Your task to perform on an android device: Do I have any events today? Image 0: 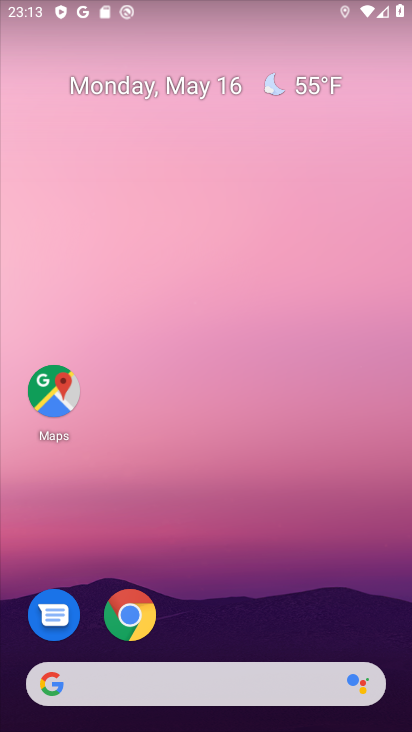
Step 0: drag from (226, 646) to (194, 155)
Your task to perform on an android device: Do I have any events today? Image 1: 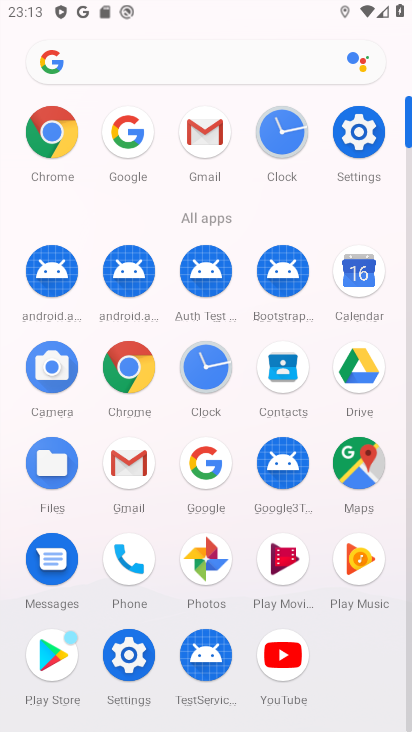
Step 1: click (351, 276)
Your task to perform on an android device: Do I have any events today? Image 2: 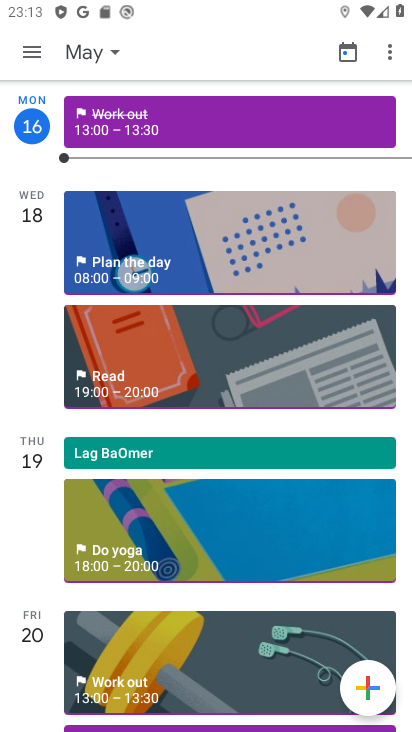
Step 2: click (39, 106)
Your task to perform on an android device: Do I have any events today? Image 3: 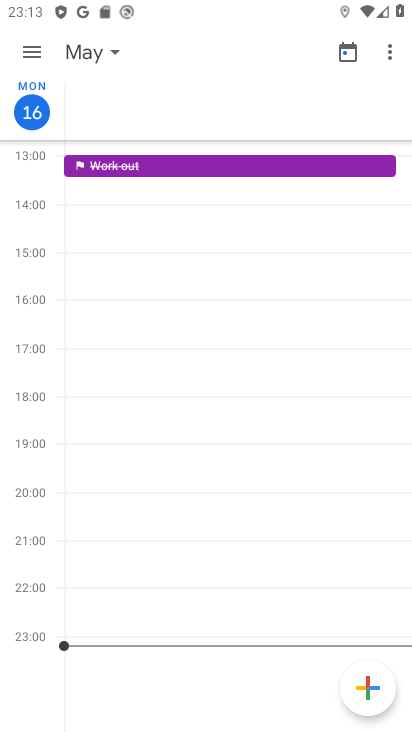
Step 3: task complete